Your task to perform on an android device: toggle translation in the chrome app Image 0: 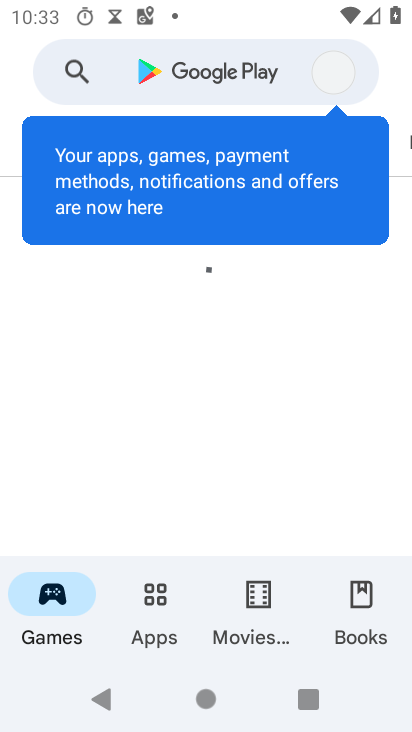
Step 0: press home button
Your task to perform on an android device: toggle translation in the chrome app Image 1: 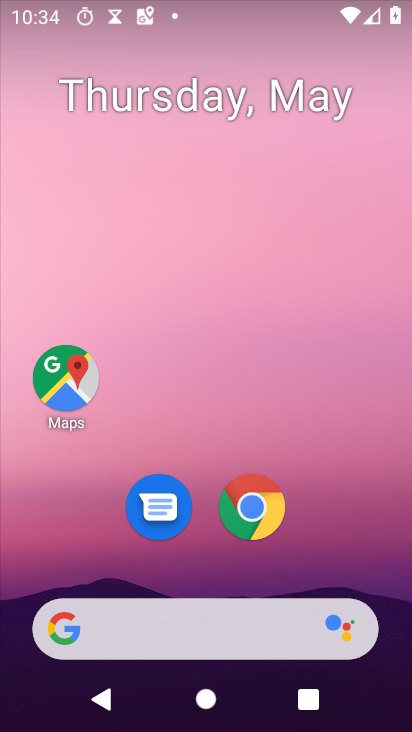
Step 1: click (249, 508)
Your task to perform on an android device: toggle translation in the chrome app Image 2: 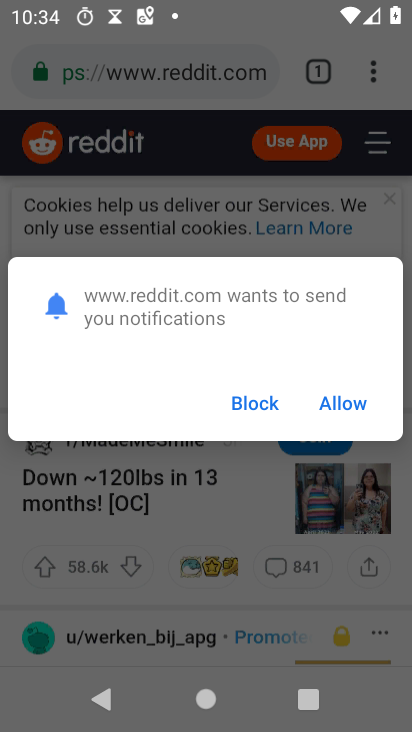
Step 2: click (281, 402)
Your task to perform on an android device: toggle translation in the chrome app Image 3: 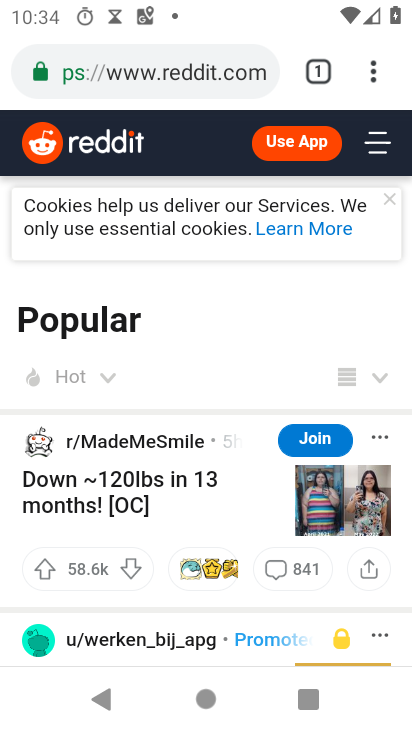
Step 3: click (322, 65)
Your task to perform on an android device: toggle translation in the chrome app Image 4: 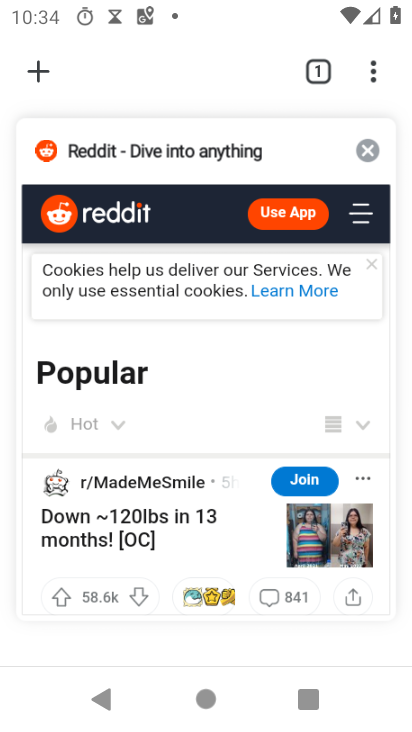
Step 4: click (366, 161)
Your task to perform on an android device: toggle translation in the chrome app Image 5: 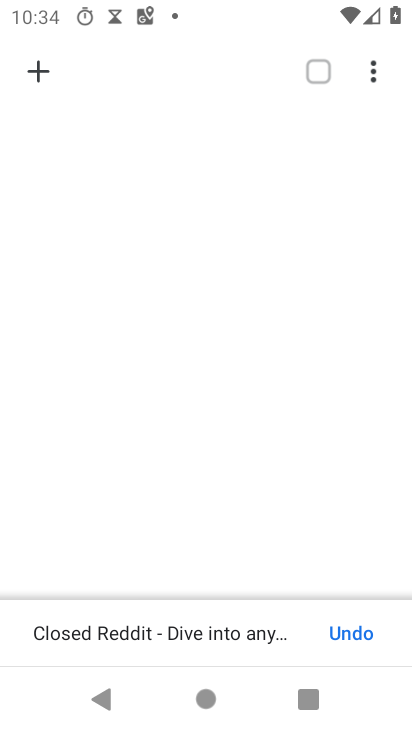
Step 5: click (379, 73)
Your task to perform on an android device: toggle translation in the chrome app Image 6: 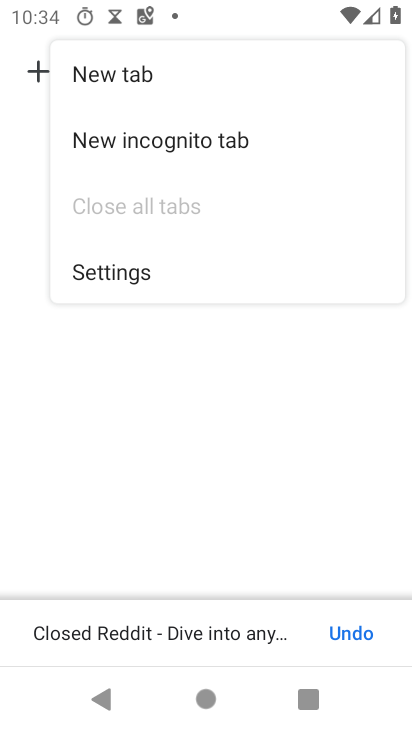
Step 6: click (146, 274)
Your task to perform on an android device: toggle translation in the chrome app Image 7: 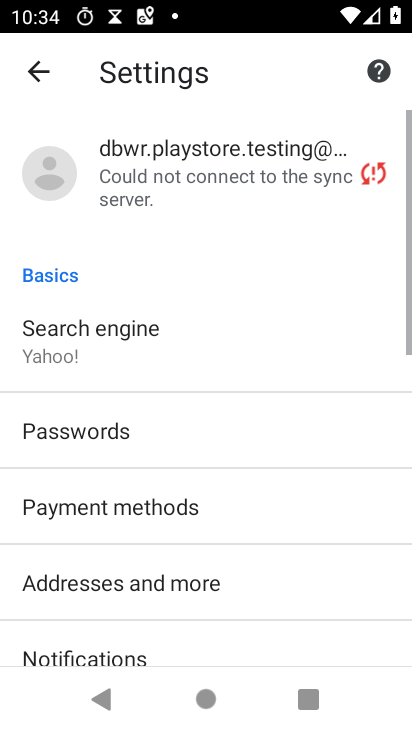
Step 7: drag from (286, 645) to (307, 238)
Your task to perform on an android device: toggle translation in the chrome app Image 8: 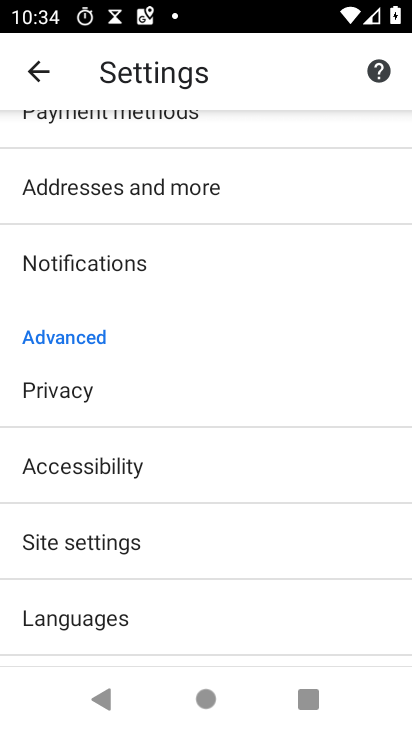
Step 8: click (90, 628)
Your task to perform on an android device: toggle translation in the chrome app Image 9: 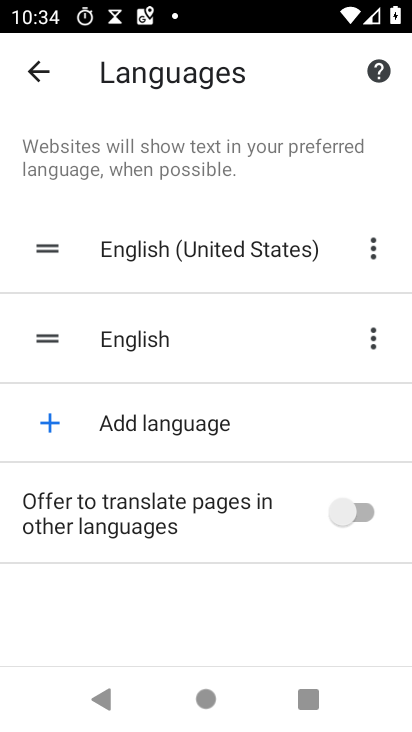
Step 9: click (353, 514)
Your task to perform on an android device: toggle translation in the chrome app Image 10: 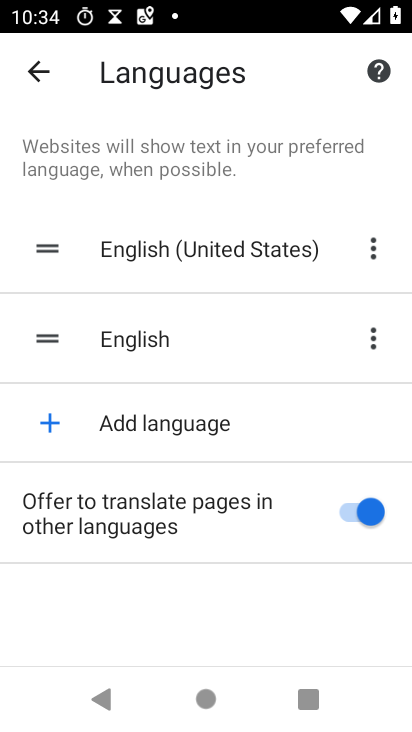
Step 10: task complete